Your task to perform on an android device: Is it going to rain tomorrow? Image 0: 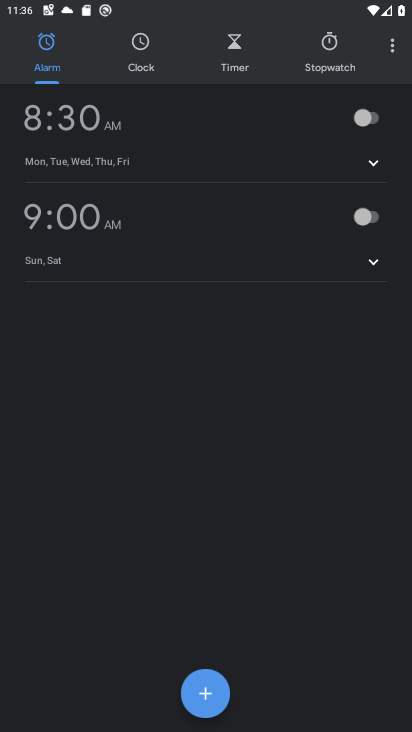
Step 0: press home button
Your task to perform on an android device: Is it going to rain tomorrow? Image 1: 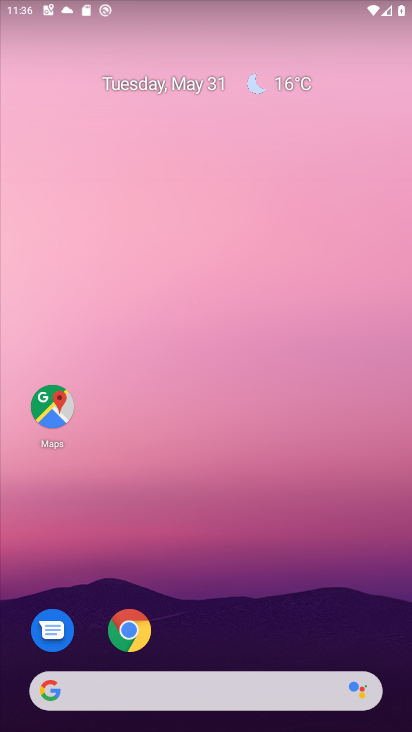
Step 1: click (286, 91)
Your task to perform on an android device: Is it going to rain tomorrow? Image 2: 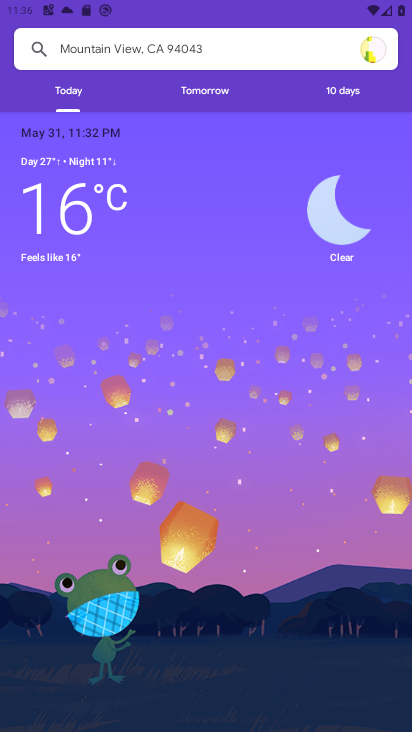
Step 2: click (209, 94)
Your task to perform on an android device: Is it going to rain tomorrow? Image 3: 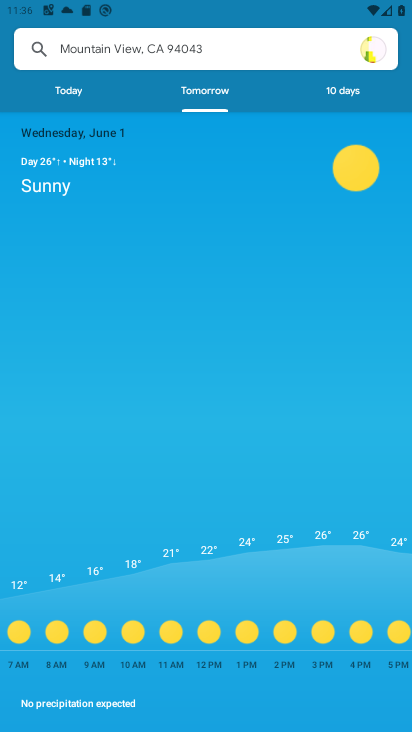
Step 3: task complete